Your task to perform on an android device: Is it going to rain tomorrow? Image 0: 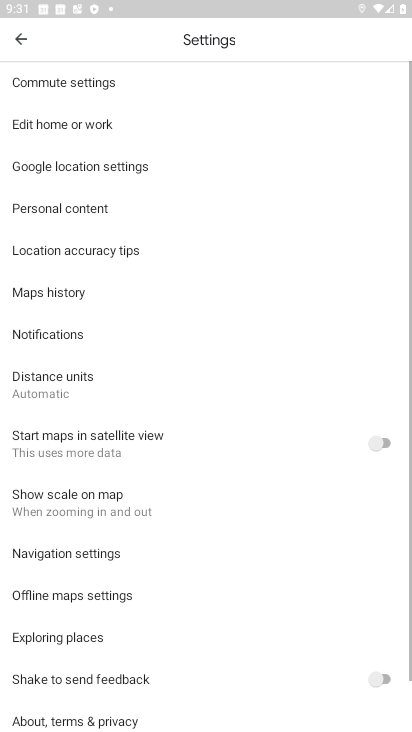
Step 0: drag from (217, 686) to (266, 21)
Your task to perform on an android device: Is it going to rain tomorrow? Image 1: 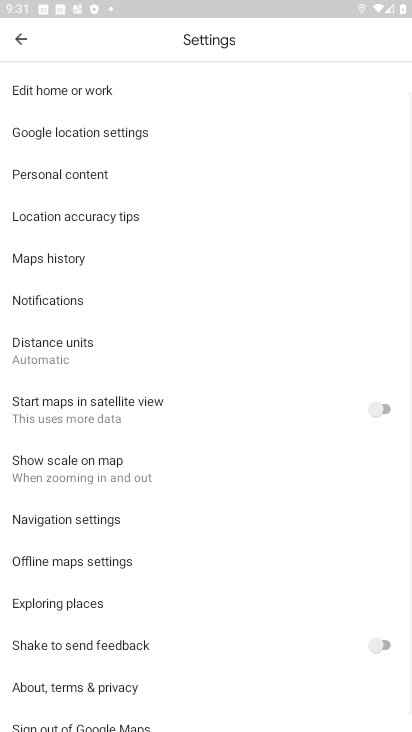
Step 1: press home button
Your task to perform on an android device: Is it going to rain tomorrow? Image 2: 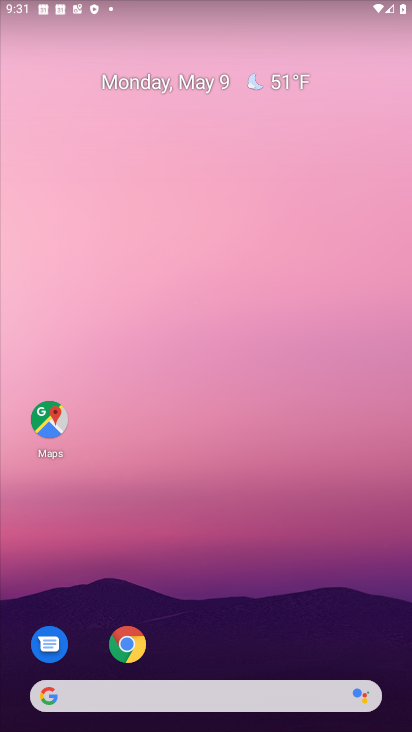
Step 2: click (208, 693)
Your task to perform on an android device: Is it going to rain tomorrow? Image 3: 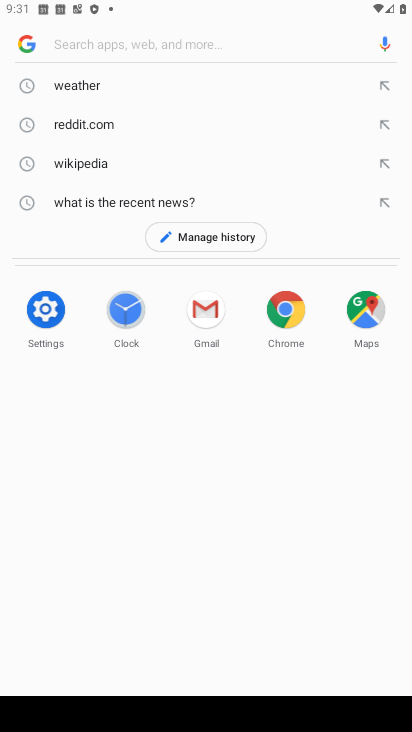
Step 3: click (84, 87)
Your task to perform on an android device: Is it going to rain tomorrow? Image 4: 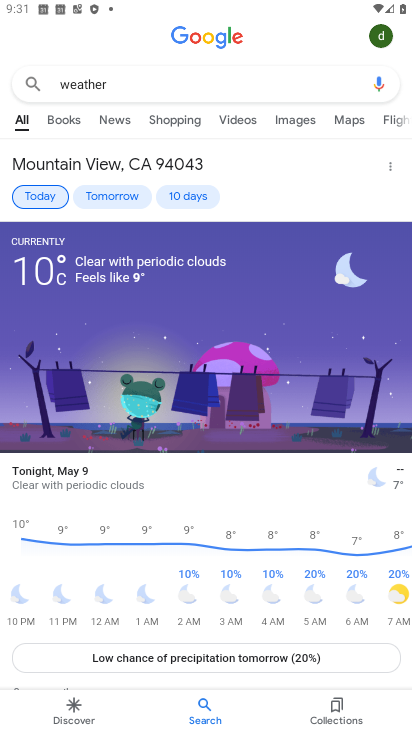
Step 4: click (111, 184)
Your task to perform on an android device: Is it going to rain tomorrow? Image 5: 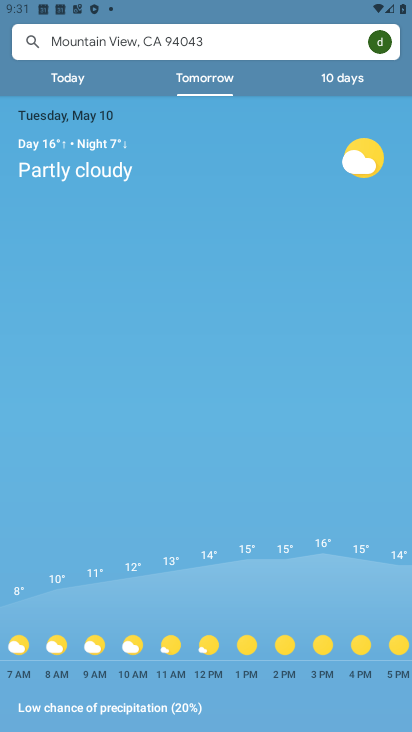
Step 5: task complete